Your task to perform on an android device: empty trash in the gmail app Image 0: 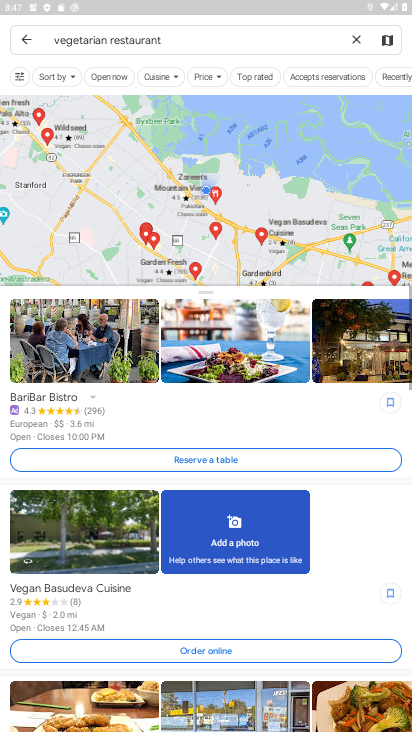
Step 0: press home button
Your task to perform on an android device: empty trash in the gmail app Image 1: 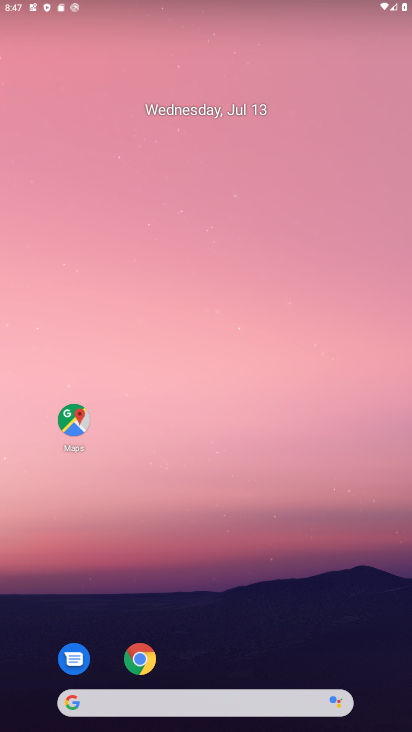
Step 1: drag from (259, 664) to (255, 135)
Your task to perform on an android device: empty trash in the gmail app Image 2: 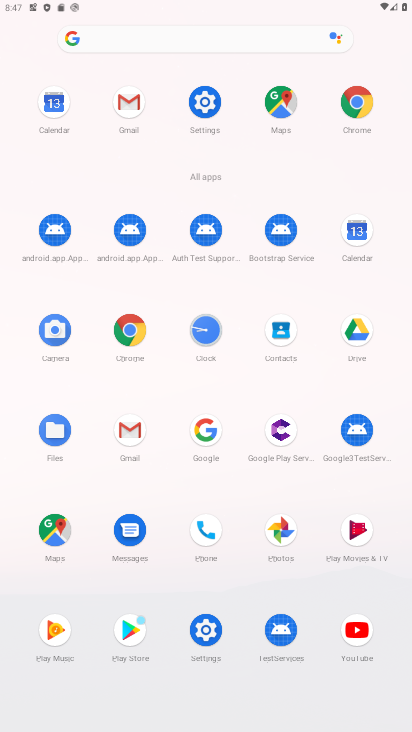
Step 2: click (131, 101)
Your task to perform on an android device: empty trash in the gmail app Image 3: 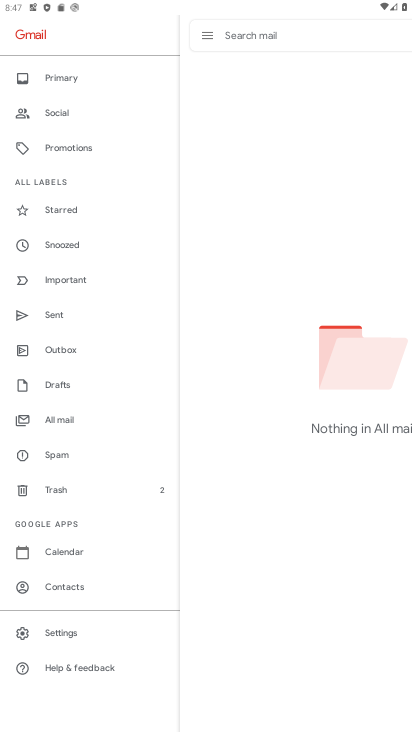
Step 3: click (61, 489)
Your task to perform on an android device: empty trash in the gmail app Image 4: 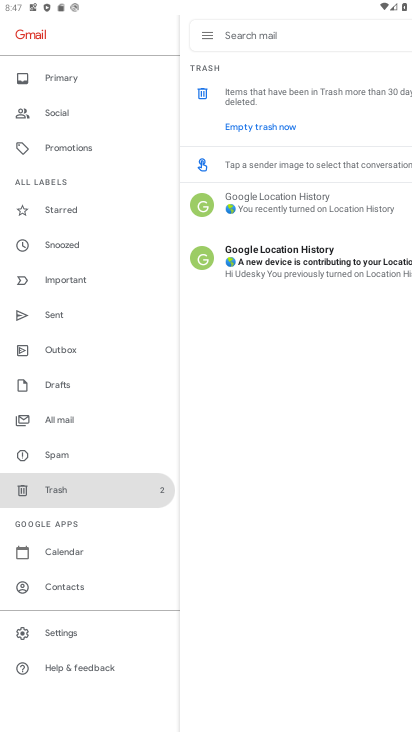
Step 4: click (199, 99)
Your task to perform on an android device: empty trash in the gmail app Image 5: 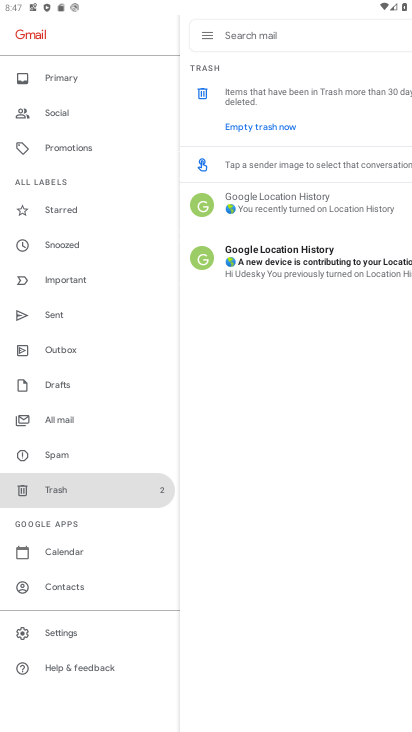
Step 5: click (256, 127)
Your task to perform on an android device: empty trash in the gmail app Image 6: 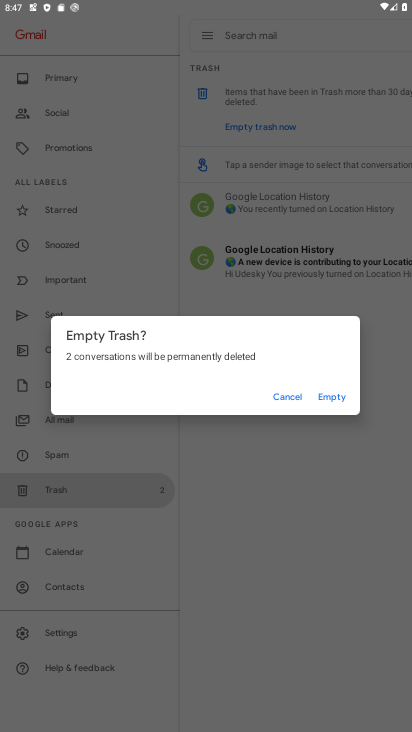
Step 6: click (334, 396)
Your task to perform on an android device: empty trash in the gmail app Image 7: 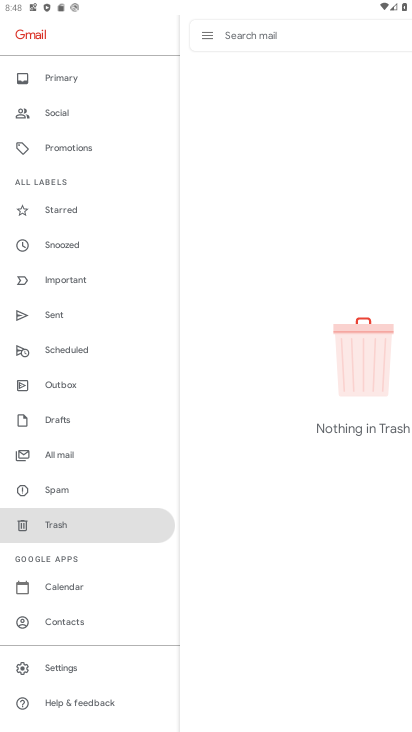
Step 7: task complete